Your task to perform on an android device: turn on showing notifications on the lock screen Image 0: 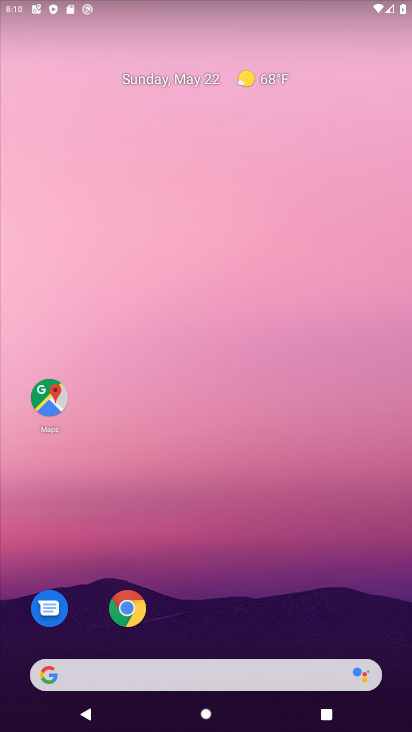
Step 0: drag from (219, 720) to (215, 157)
Your task to perform on an android device: turn on showing notifications on the lock screen Image 1: 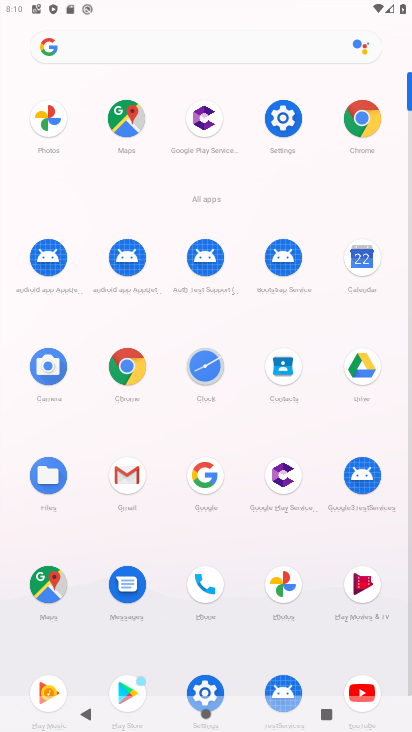
Step 1: click (283, 117)
Your task to perform on an android device: turn on showing notifications on the lock screen Image 2: 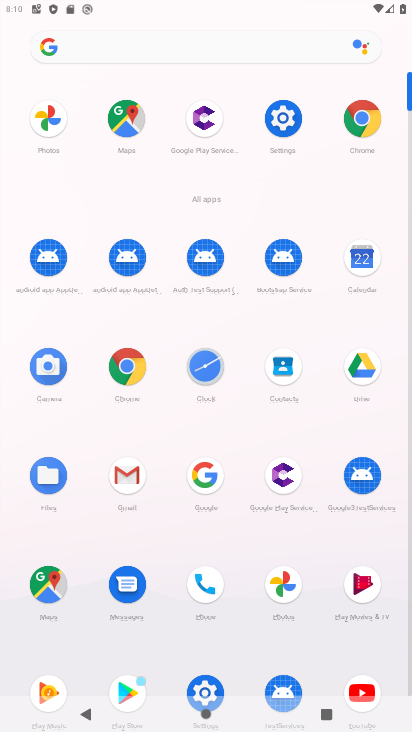
Step 2: click (284, 123)
Your task to perform on an android device: turn on showing notifications on the lock screen Image 3: 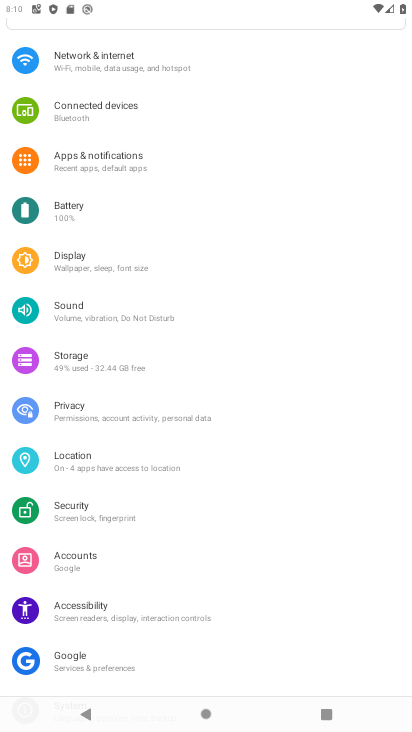
Step 3: click (104, 157)
Your task to perform on an android device: turn on showing notifications on the lock screen Image 4: 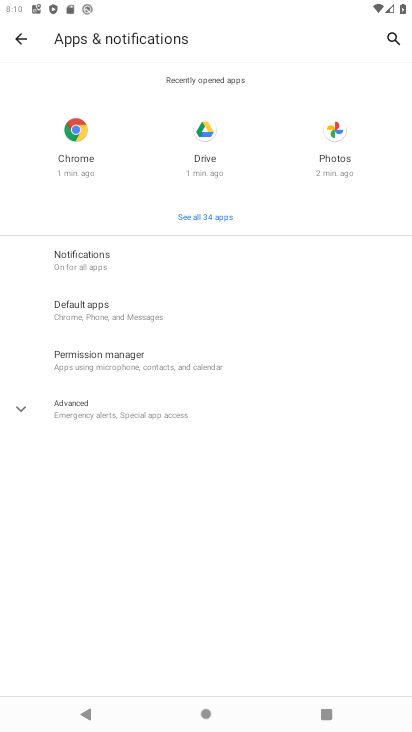
Step 4: click (84, 257)
Your task to perform on an android device: turn on showing notifications on the lock screen Image 5: 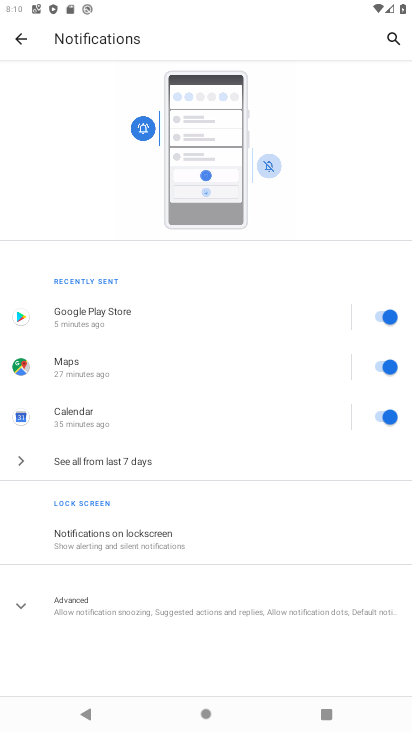
Step 5: click (148, 534)
Your task to perform on an android device: turn on showing notifications on the lock screen Image 6: 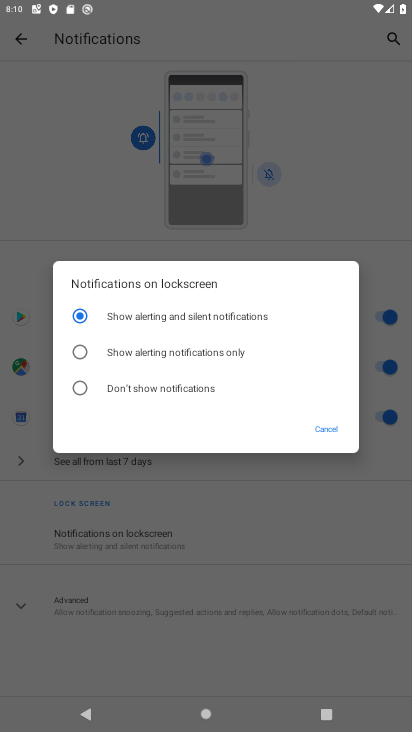
Step 6: click (309, 474)
Your task to perform on an android device: turn on showing notifications on the lock screen Image 7: 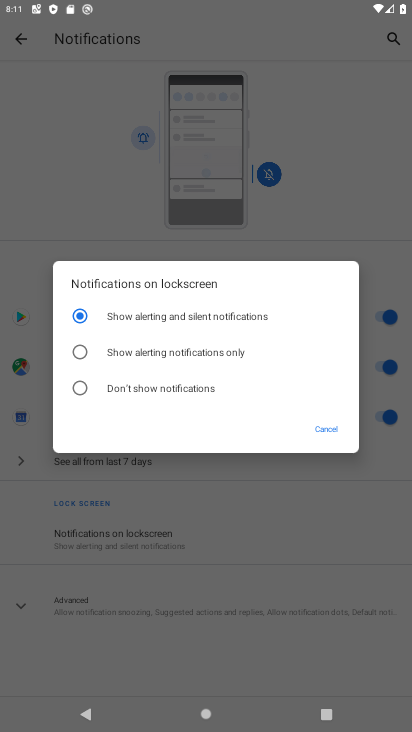
Step 7: click (326, 428)
Your task to perform on an android device: turn on showing notifications on the lock screen Image 8: 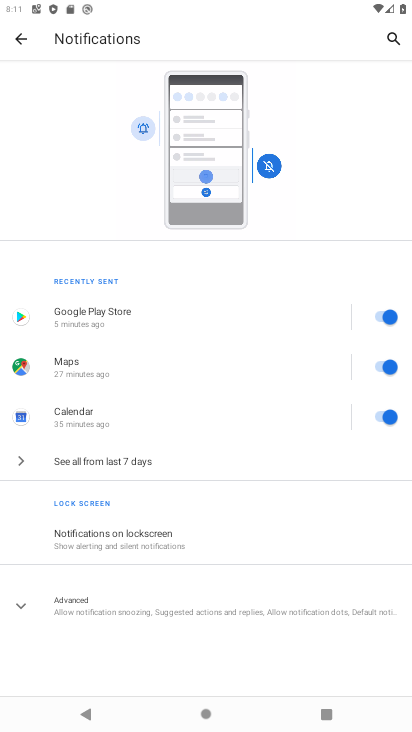
Step 8: task complete